Your task to perform on an android device: uninstall "Google Play Music" Image 0: 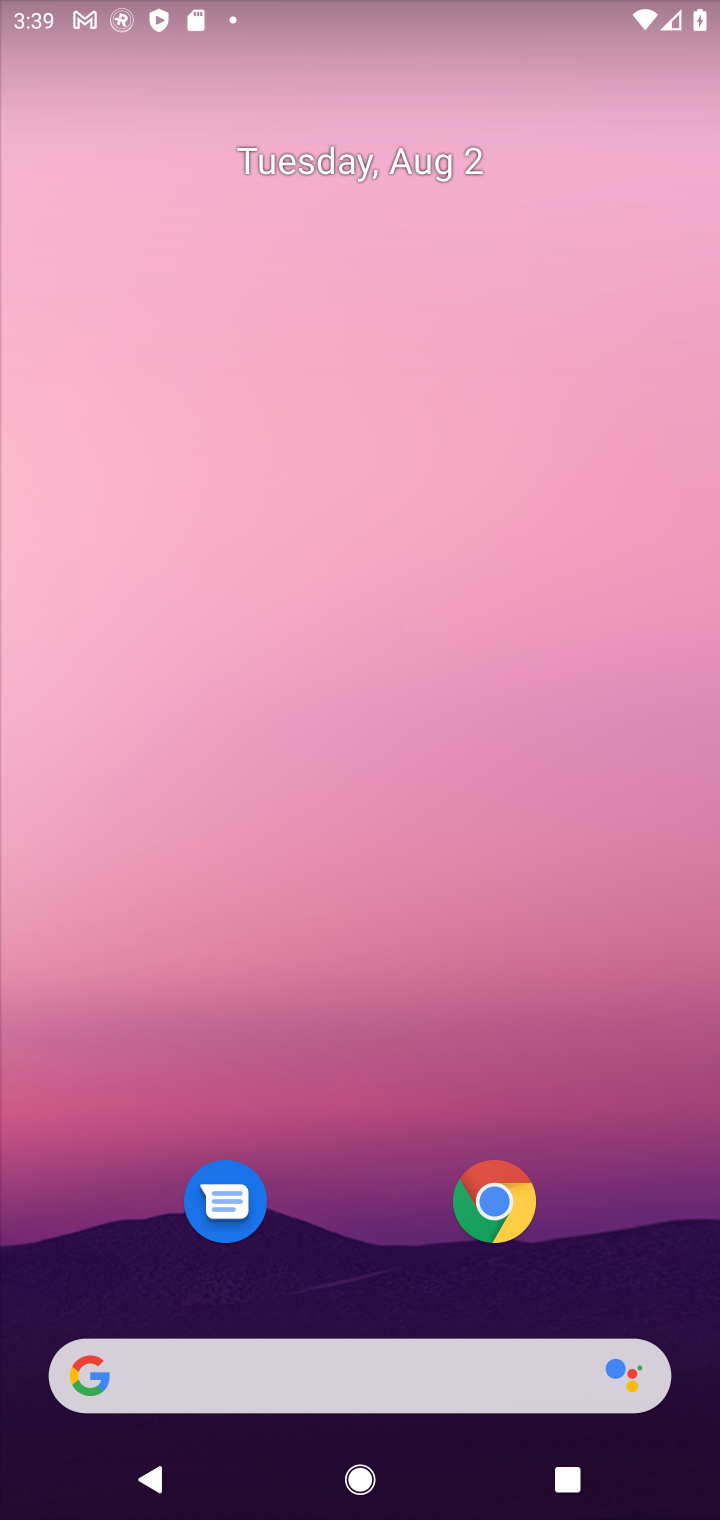
Step 0: drag from (364, 1239) to (403, 40)
Your task to perform on an android device: uninstall "Google Play Music" Image 1: 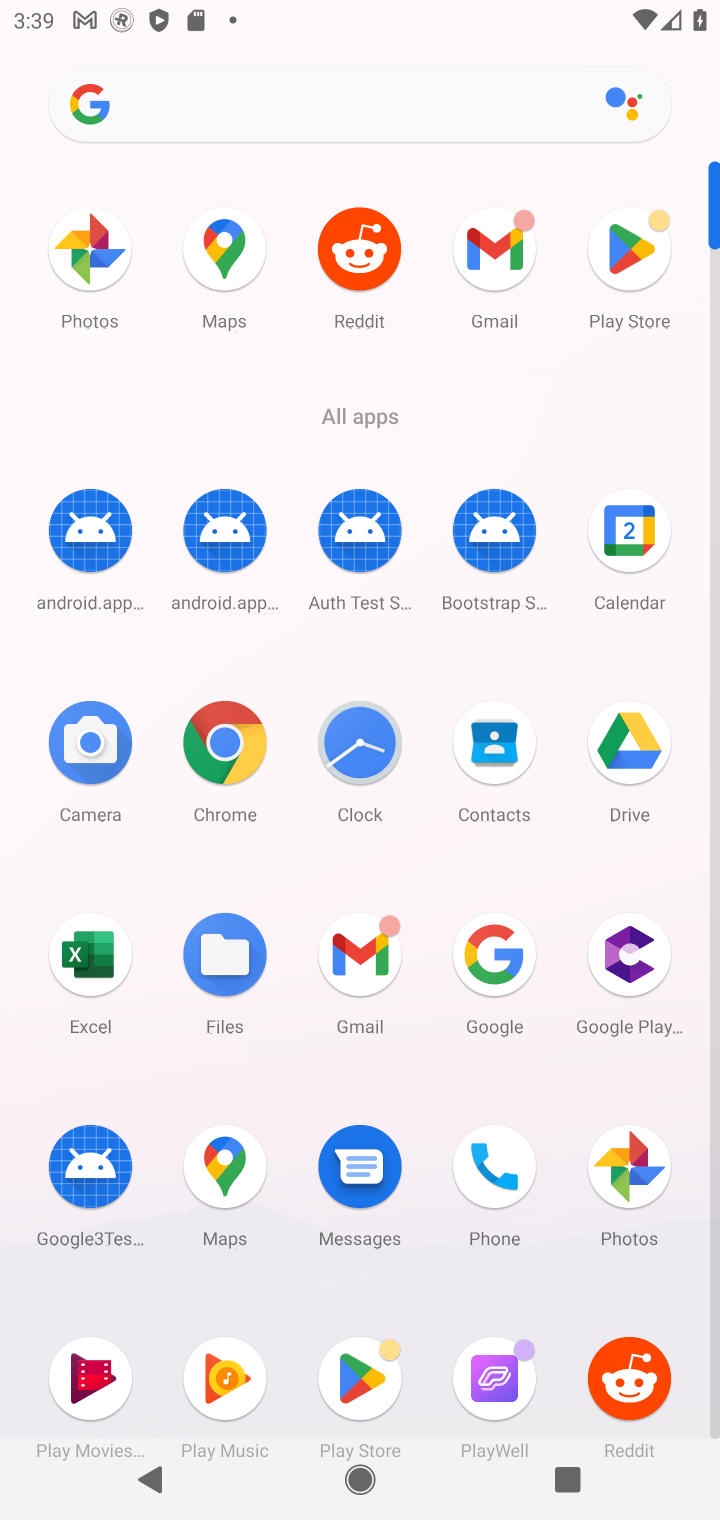
Step 1: click (622, 236)
Your task to perform on an android device: uninstall "Google Play Music" Image 2: 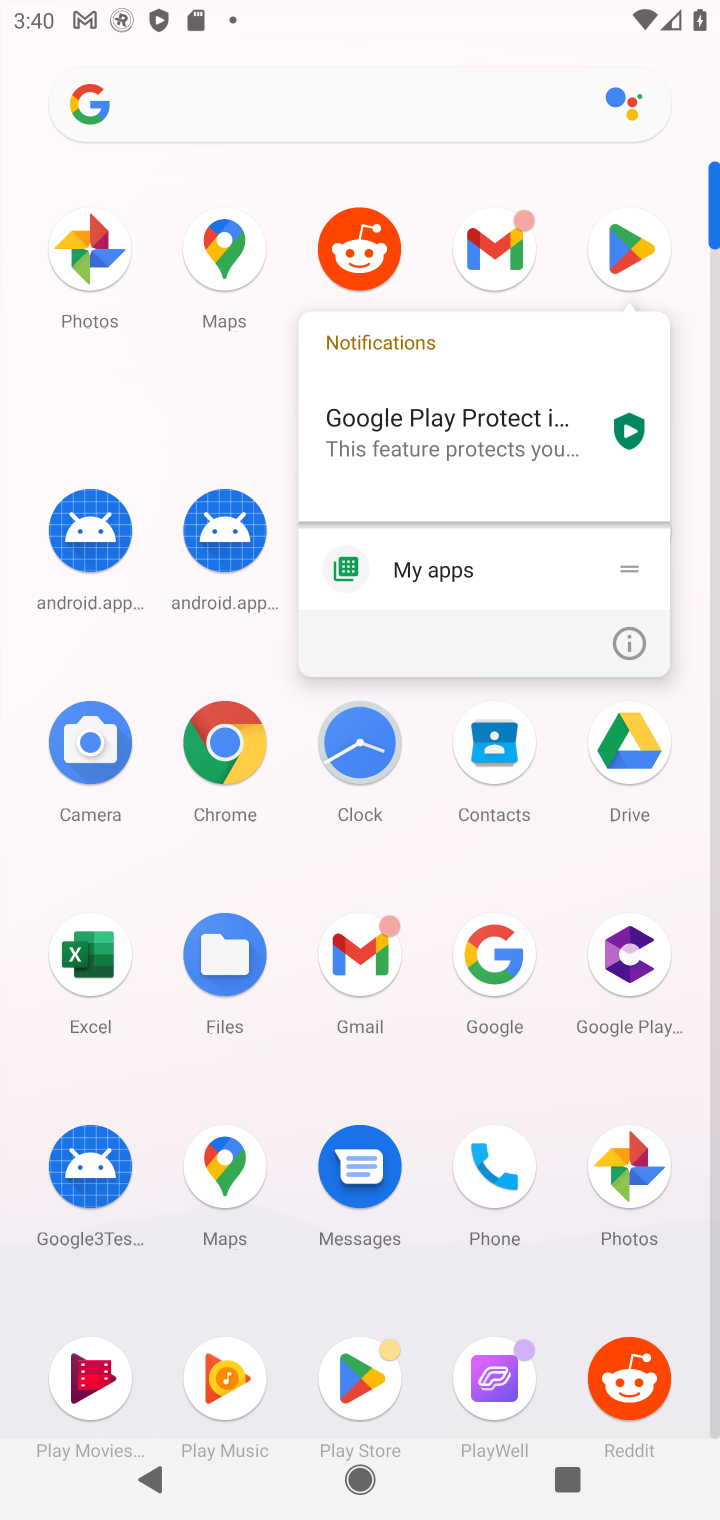
Step 2: click (628, 235)
Your task to perform on an android device: uninstall "Google Play Music" Image 3: 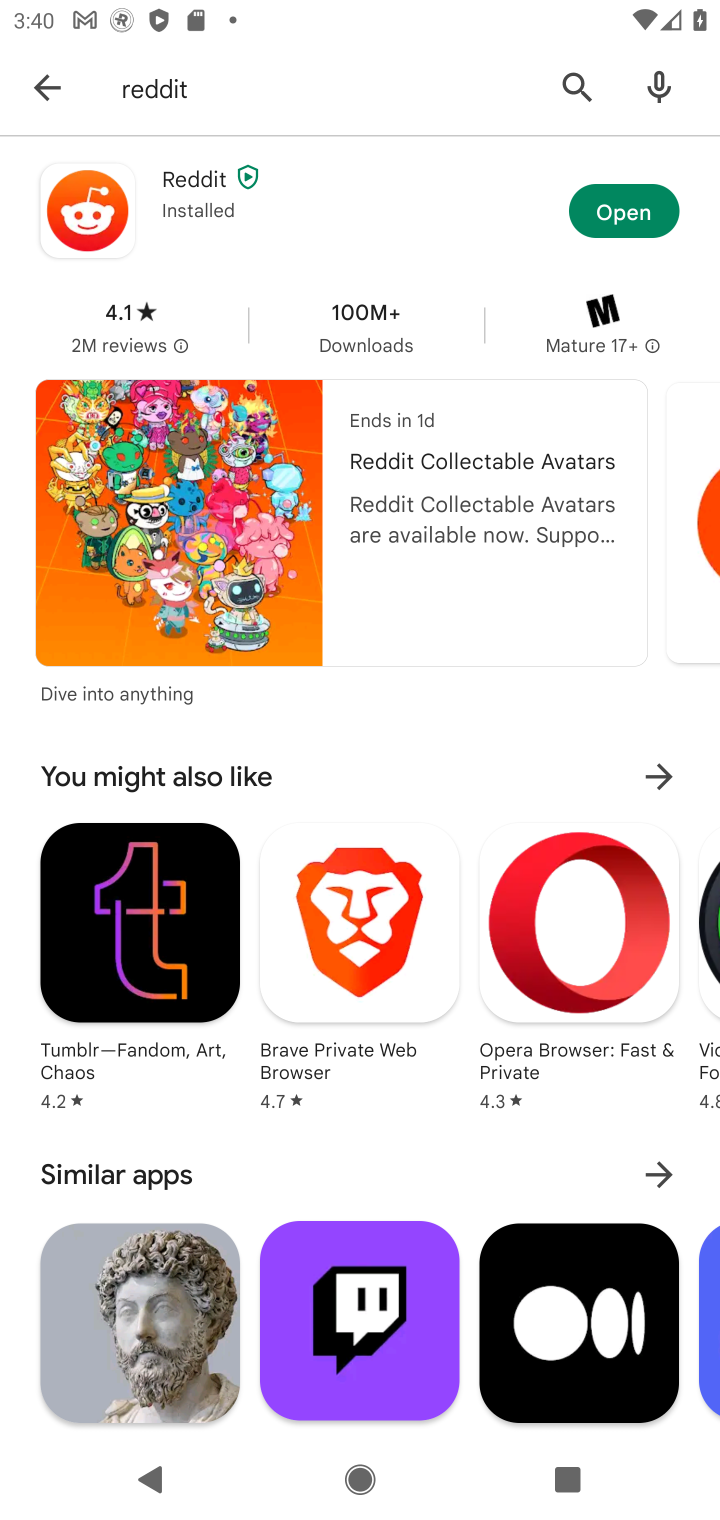
Step 3: click (563, 79)
Your task to perform on an android device: uninstall "Google Play Music" Image 4: 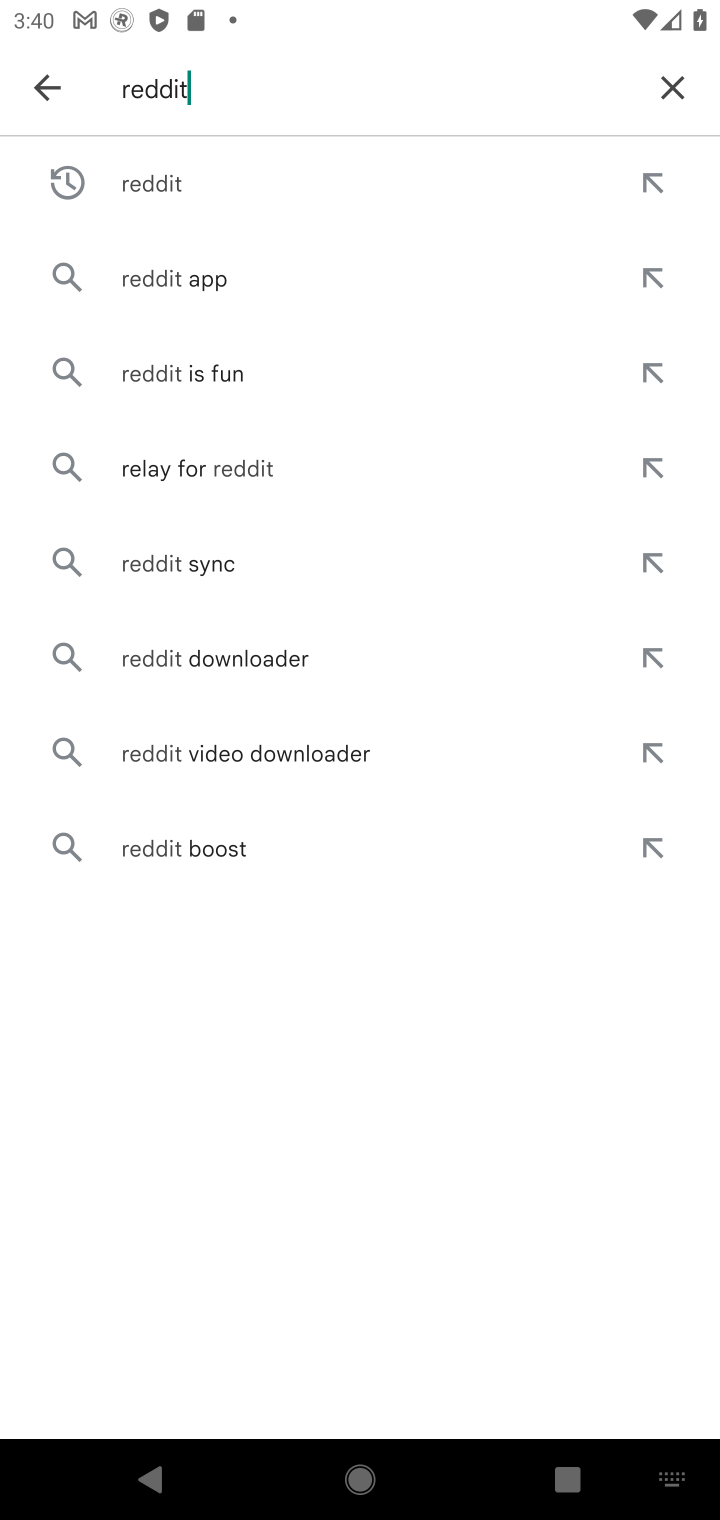
Step 4: click (676, 91)
Your task to perform on an android device: uninstall "Google Play Music" Image 5: 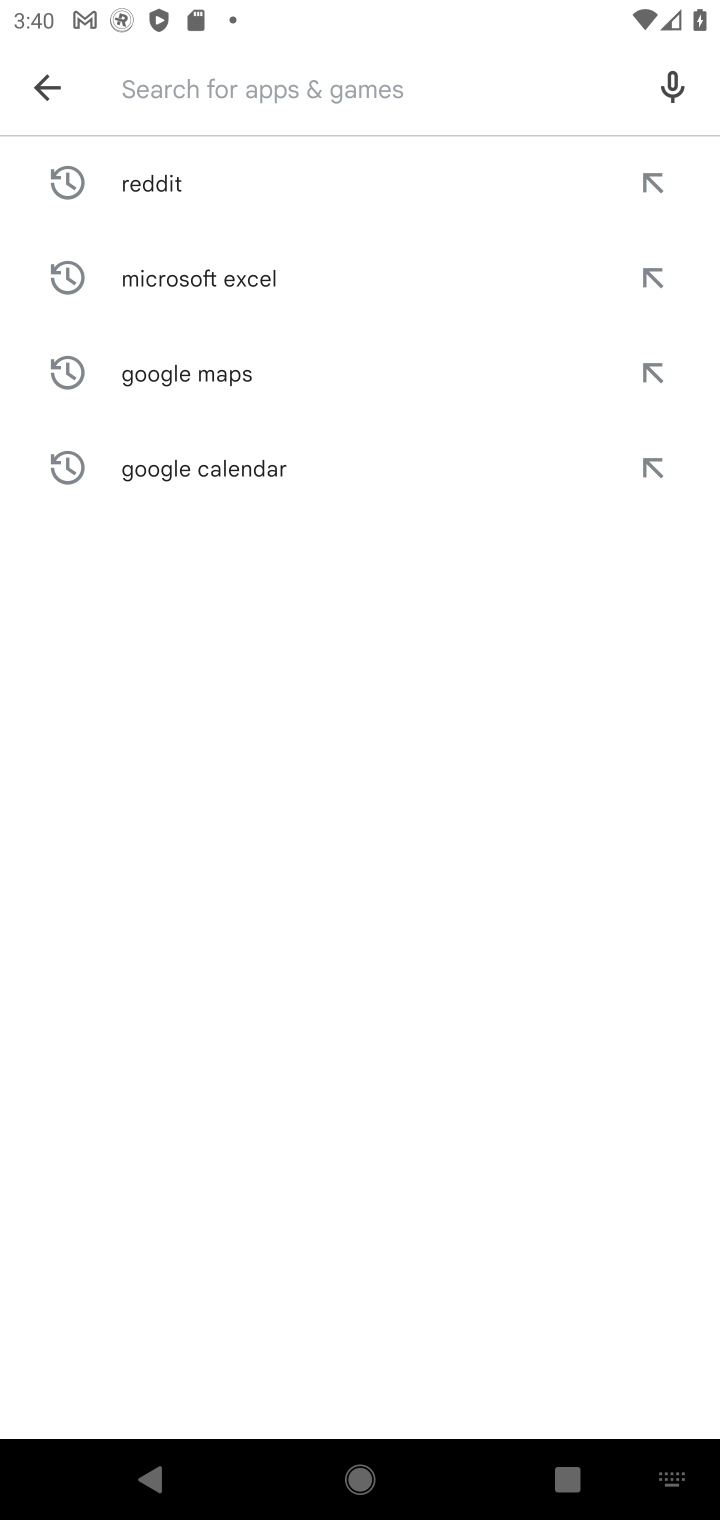
Step 5: type "Google Play Music"
Your task to perform on an android device: uninstall "Google Play Music" Image 6: 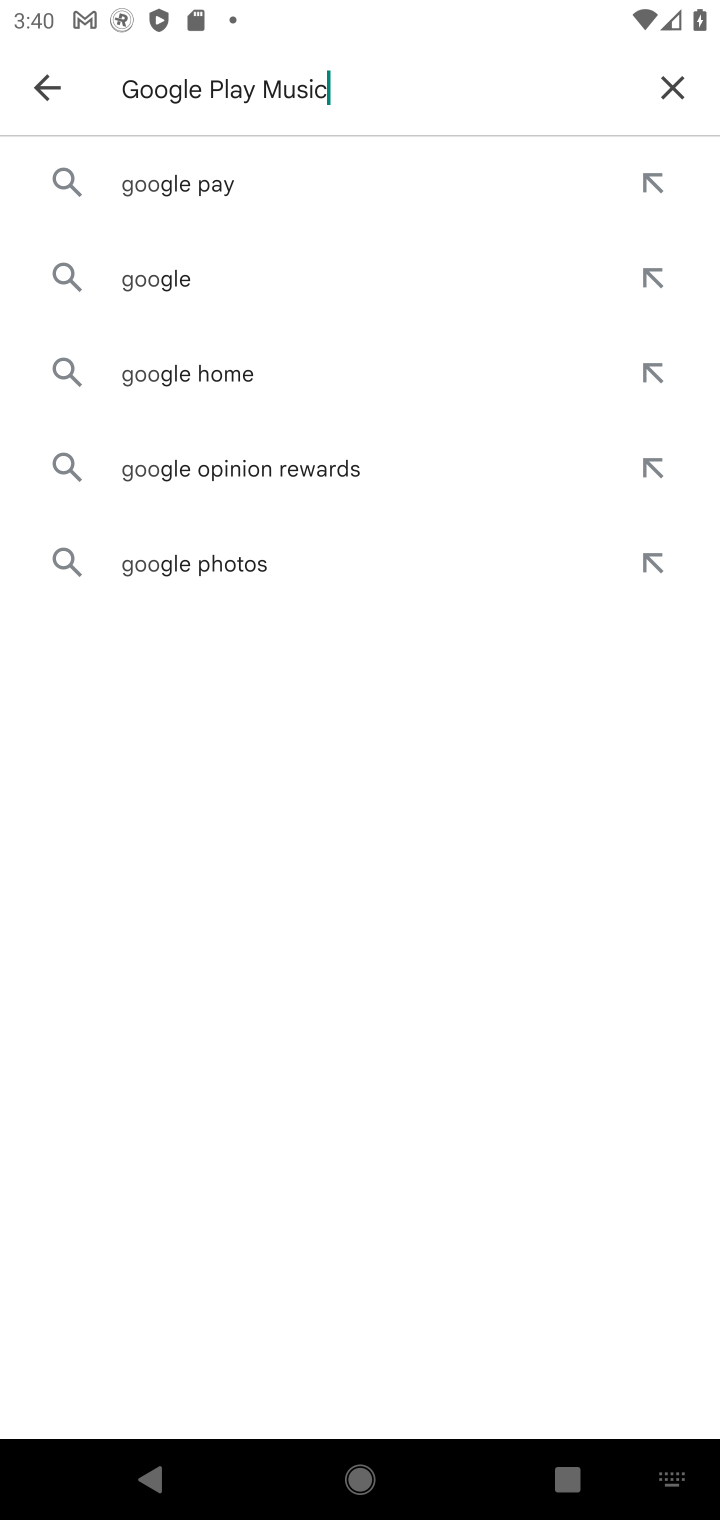
Step 6: type ""
Your task to perform on an android device: uninstall "Google Play Music" Image 7: 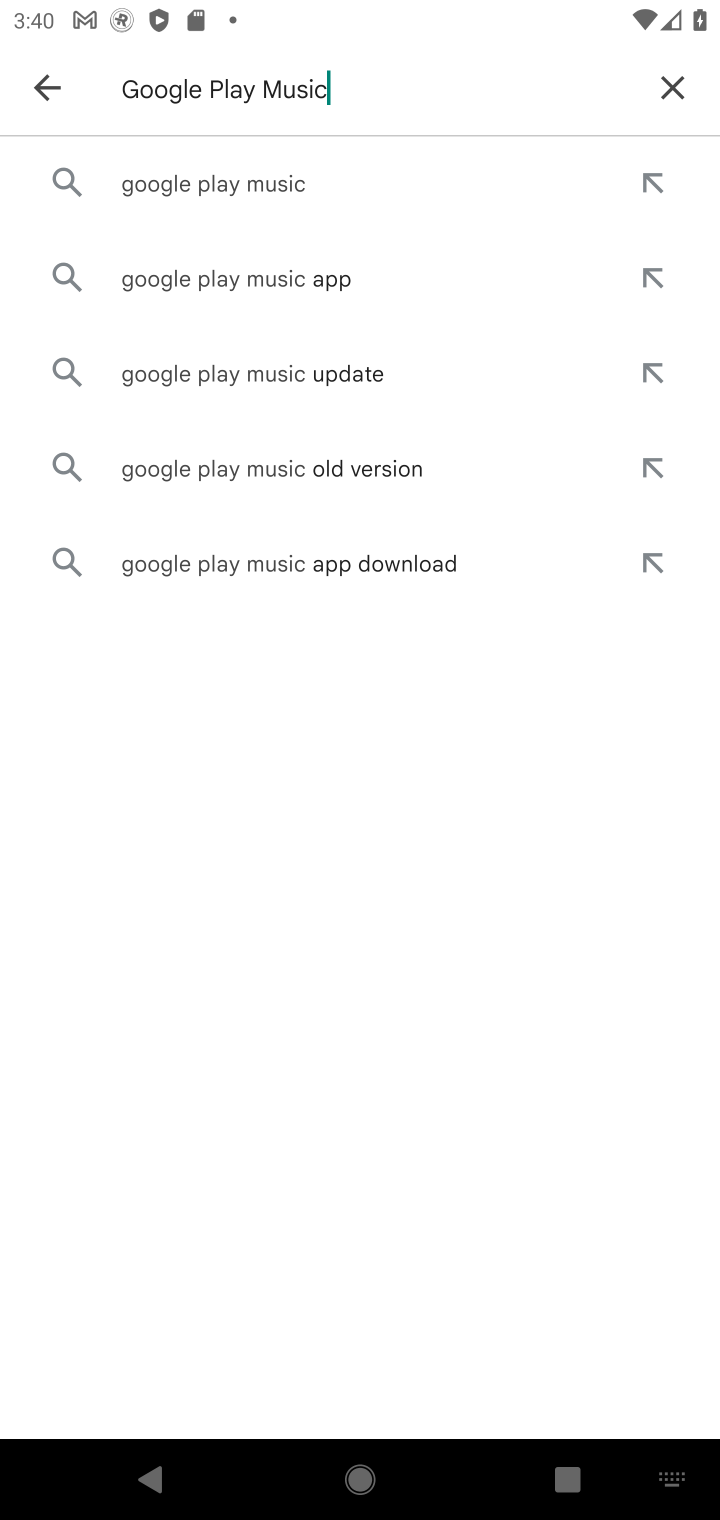
Step 7: click (341, 180)
Your task to perform on an android device: uninstall "Google Play Music" Image 8: 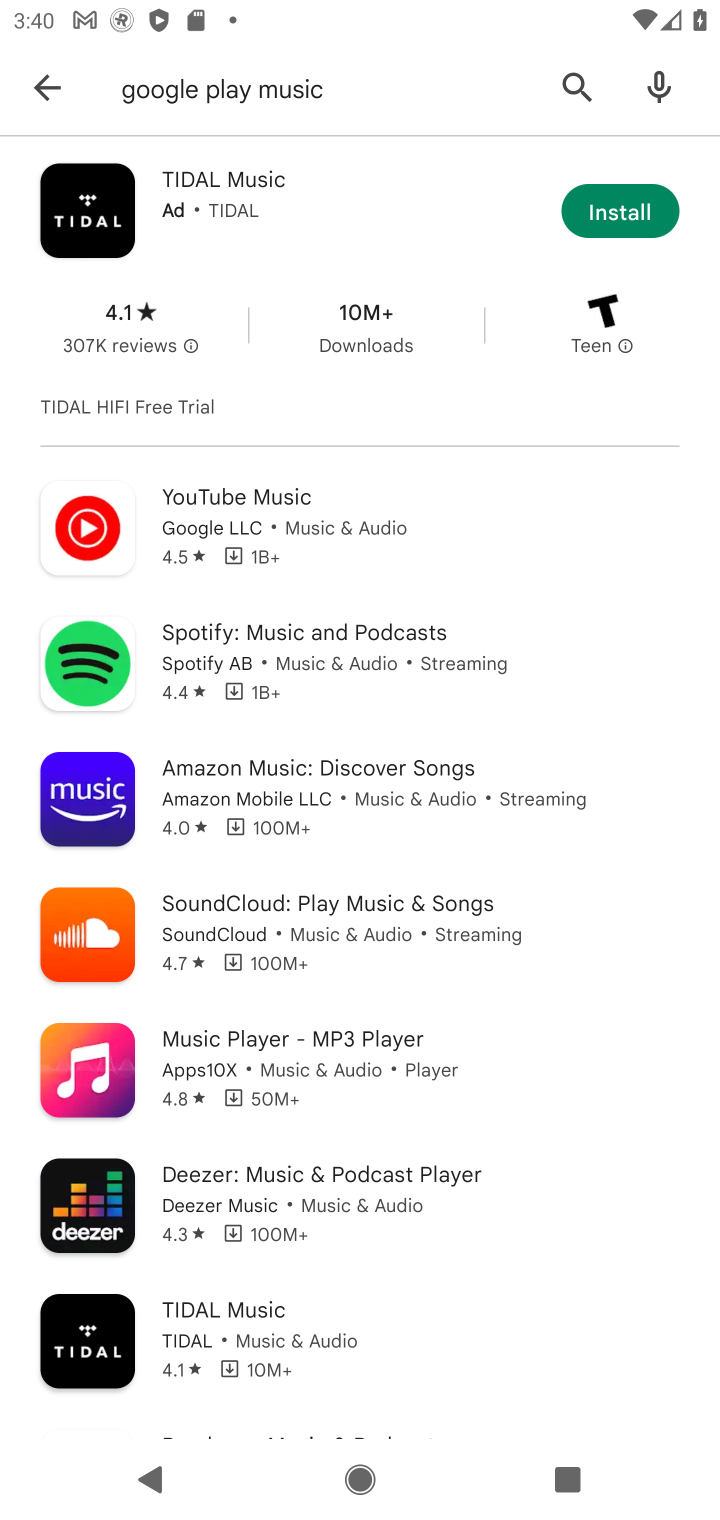
Step 8: click (47, 107)
Your task to perform on an android device: uninstall "Google Play Music" Image 9: 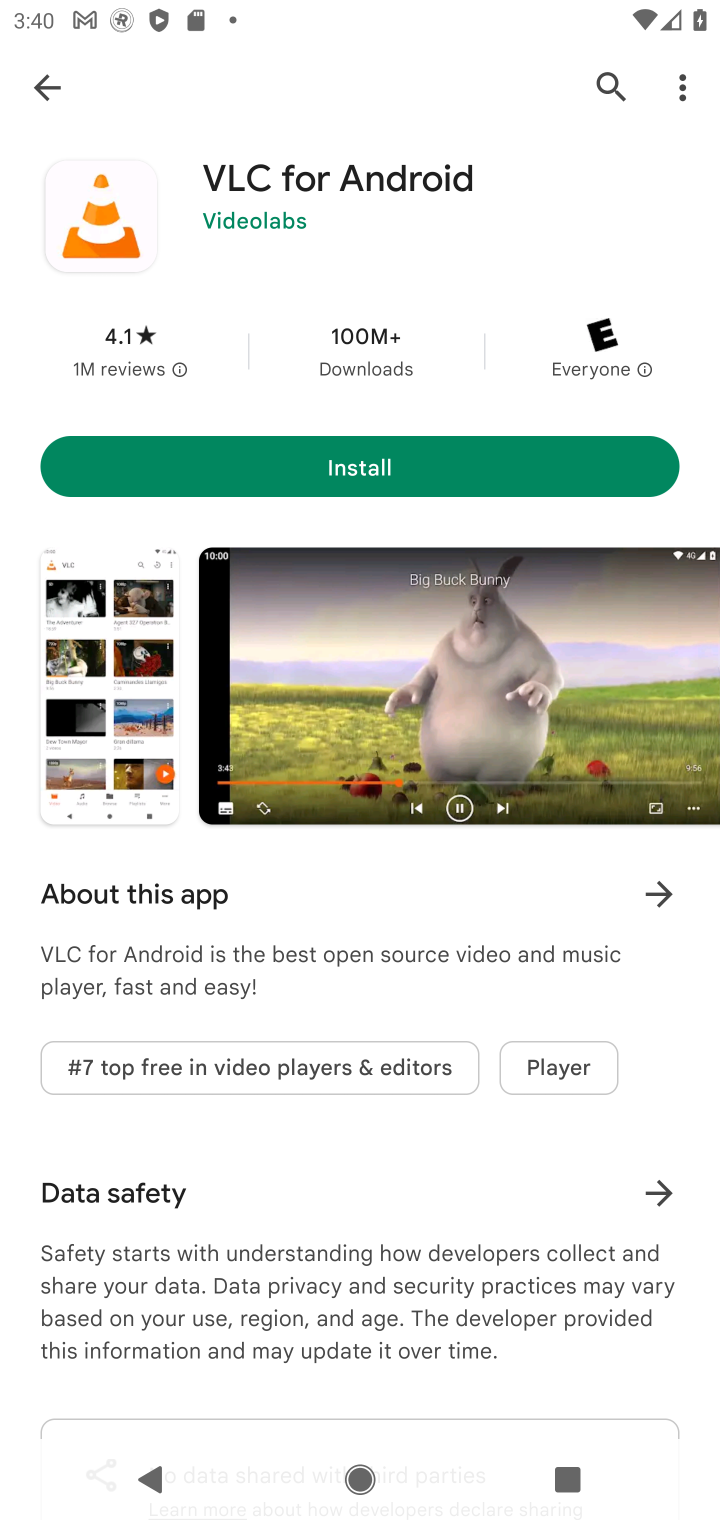
Step 9: task complete